Your task to perform on an android device: change your default location settings in chrome Image 0: 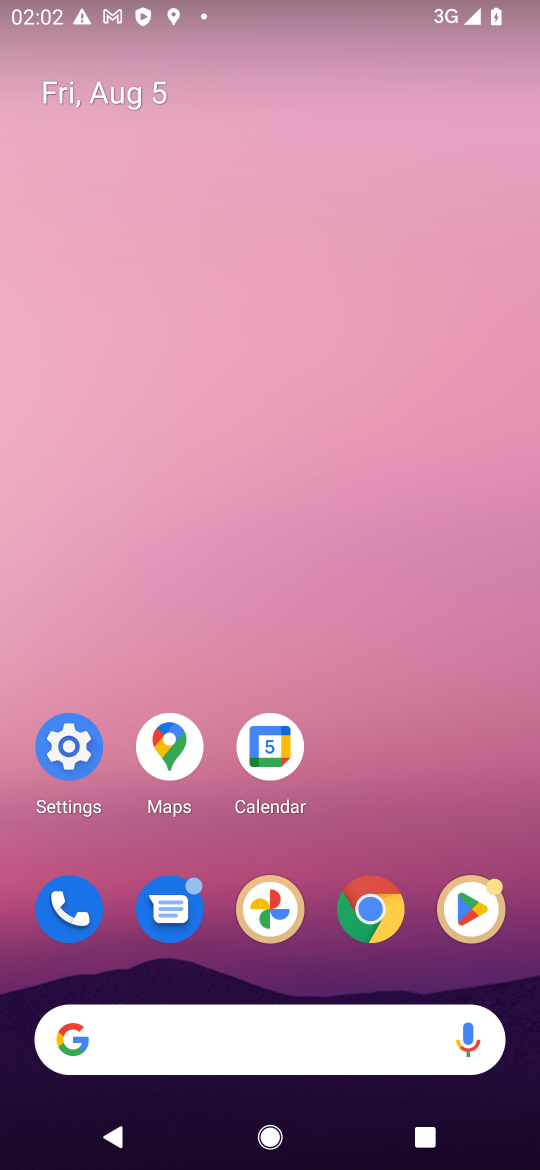
Step 0: click (373, 910)
Your task to perform on an android device: change your default location settings in chrome Image 1: 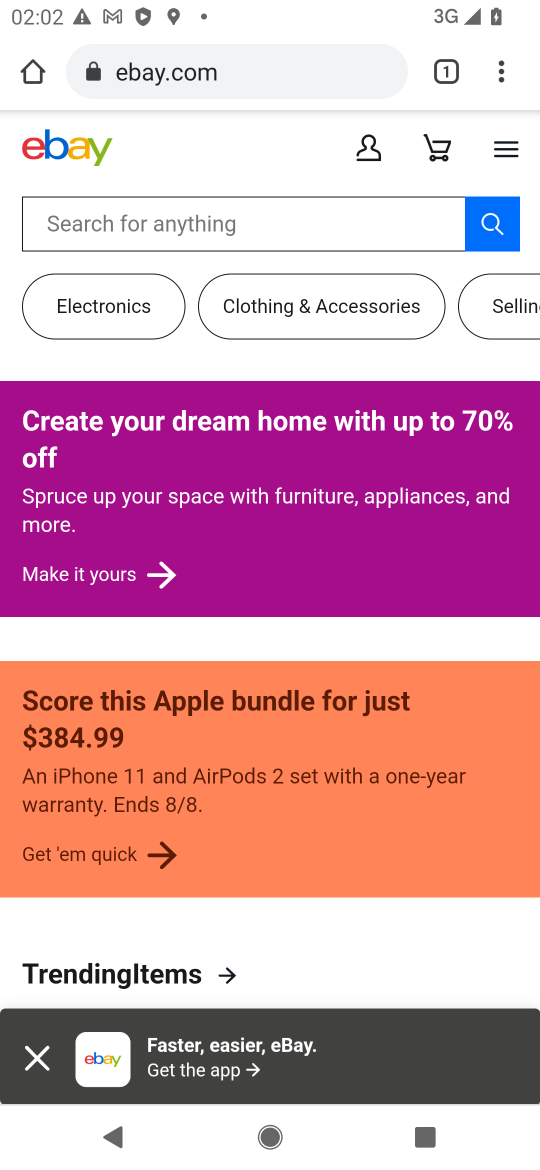
Step 1: click (509, 72)
Your task to perform on an android device: change your default location settings in chrome Image 2: 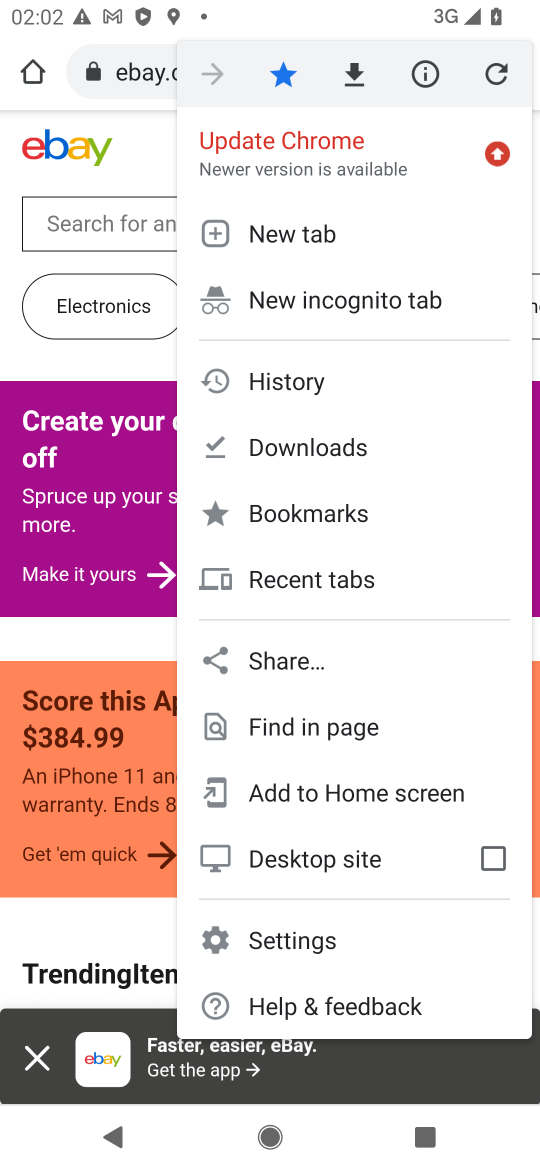
Step 2: click (305, 936)
Your task to perform on an android device: change your default location settings in chrome Image 3: 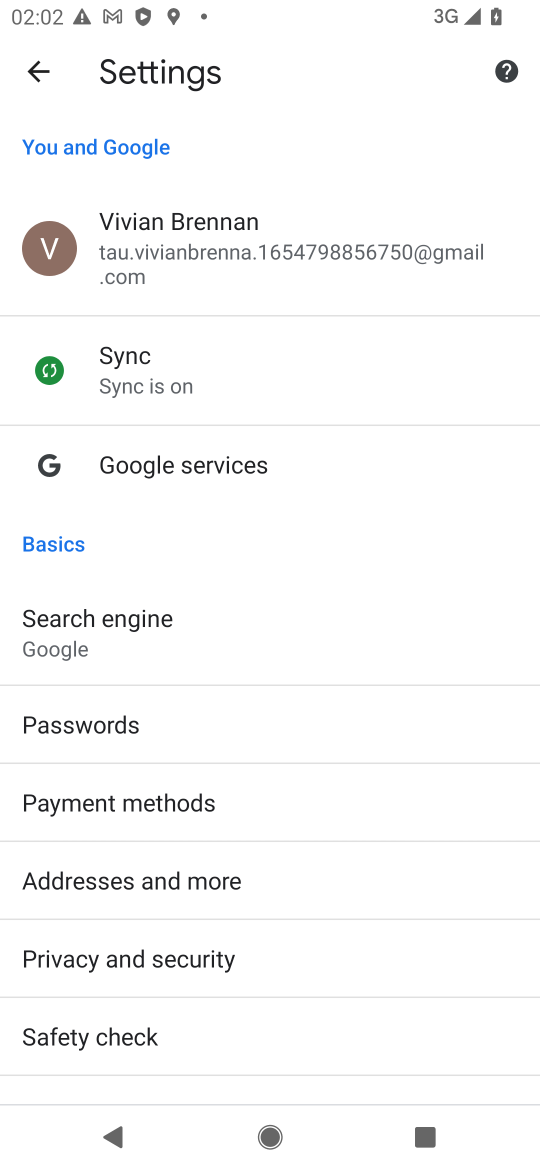
Step 3: drag from (293, 948) to (293, 396)
Your task to perform on an android device: change your default location settings in chrome Image 4: 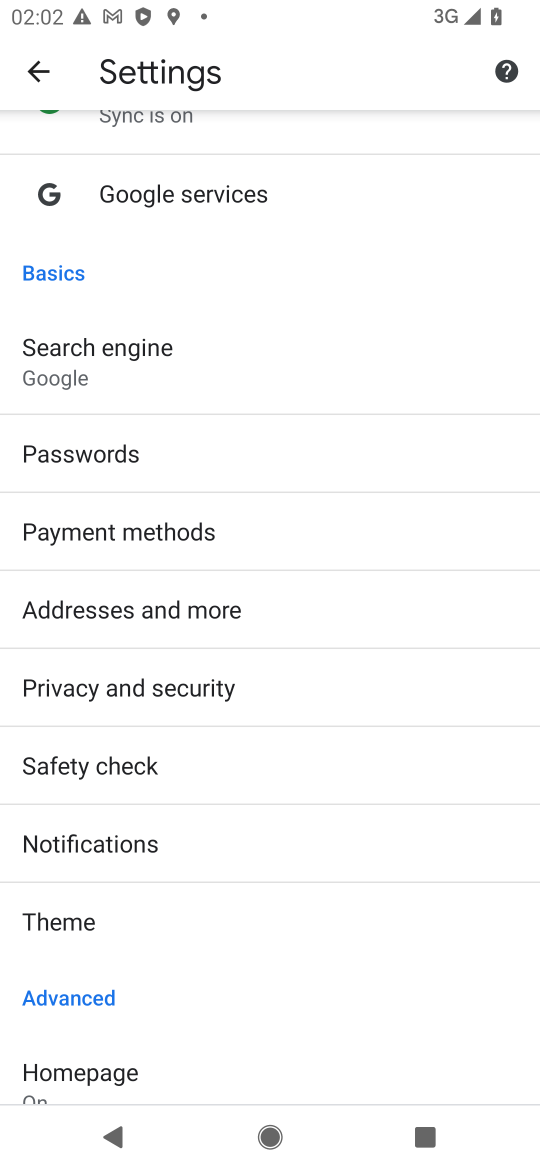
Step 4: drag from (225, 963) to (247, 374)
Your task to perform on an android device: change your default location settings in chrome Image 5: 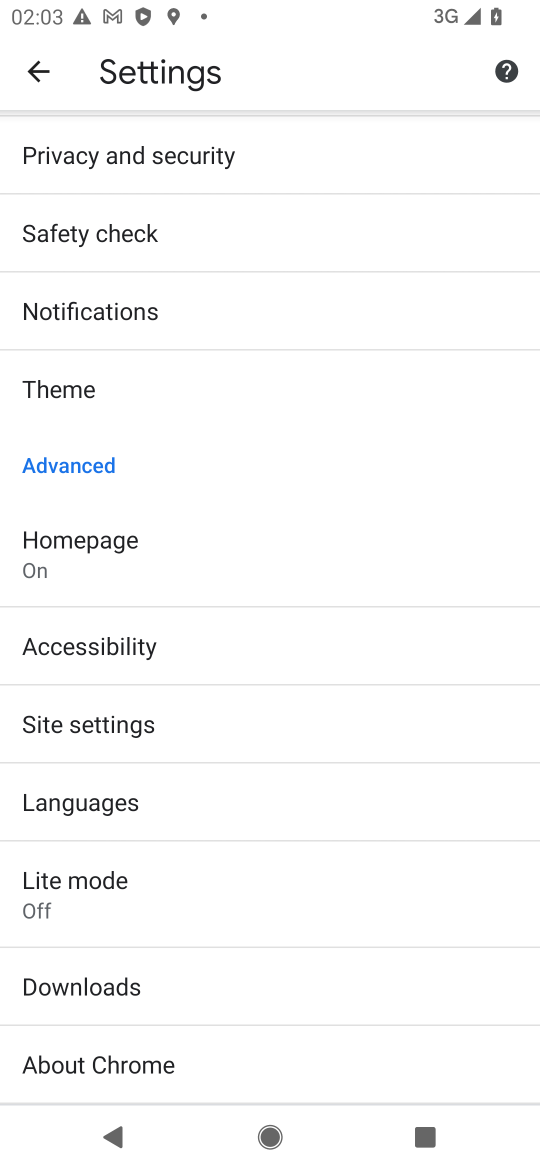
Step 5: click (124, 713)
Your task to perform on an android device: change your default location settings in chrome Image 6: 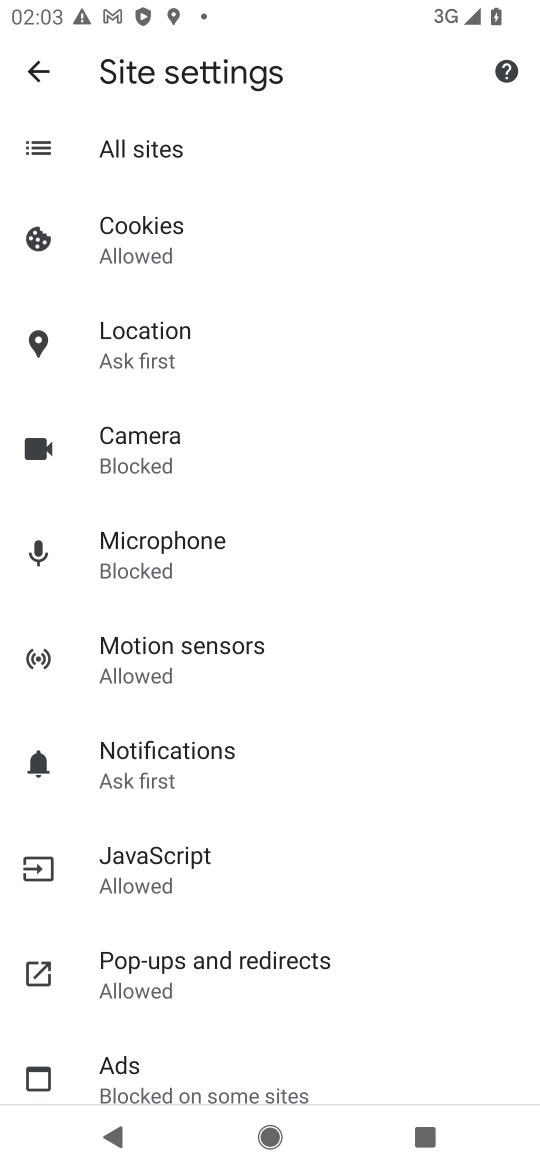
Step 6: click (146, 321)
Your task to perform on an android device: change your default location settings in chrome Image 7: 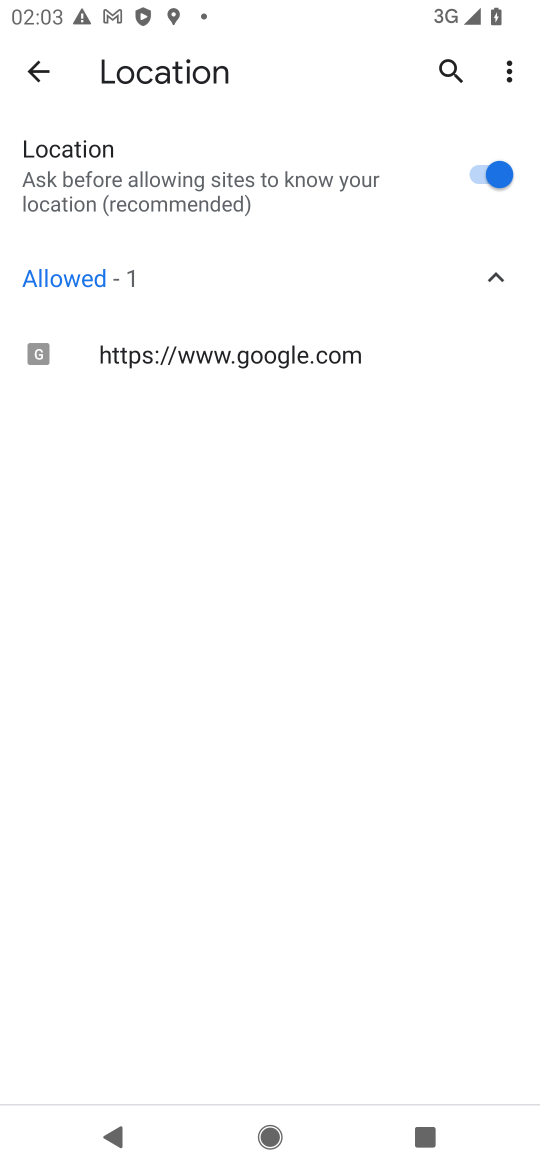
Step 7: click (491, 161)
Your task to perform on an android device: change your default location settings in chrome Image 8: 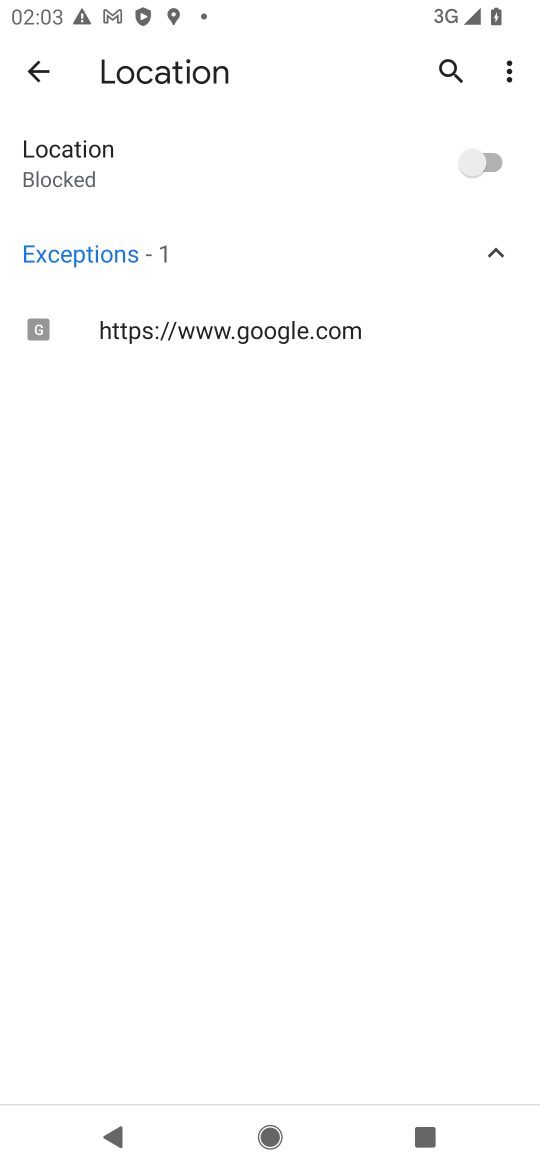
Step 8: task complete